Your task to perform on an android device: Open Google Image 0: 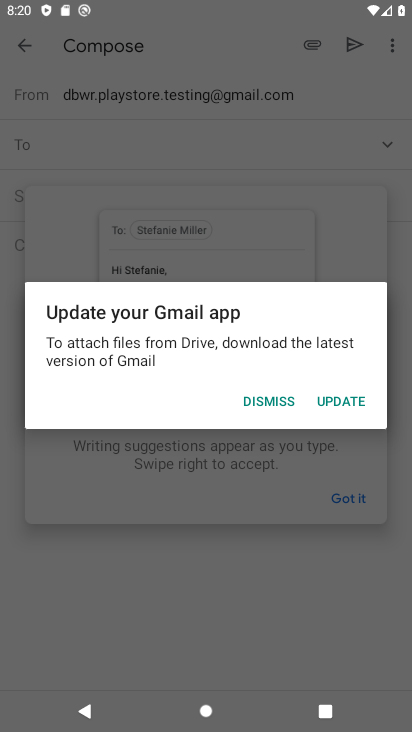
Step 0: press home button
Your task to perform on an android device: Open Google Image 1: 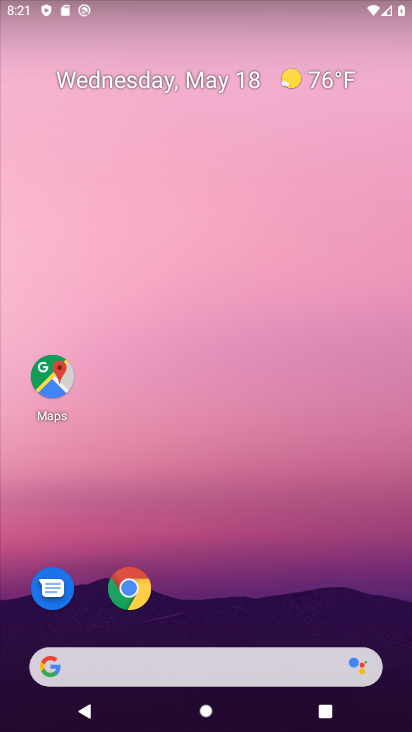
Step 1: click (132, 590)
Your task to perform on an android device: Open Google Image 2: 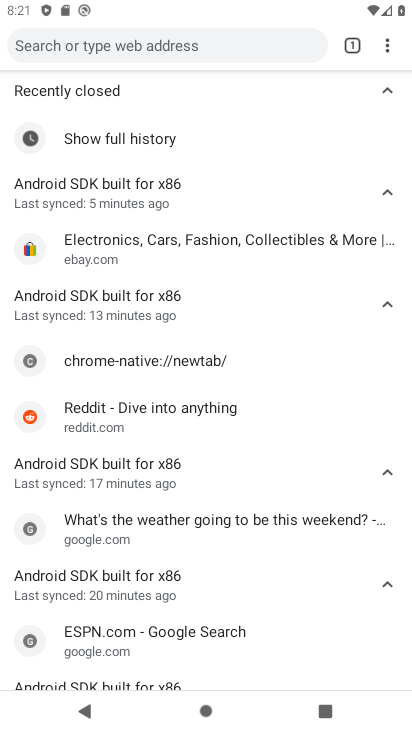
Step 2: click (117, 53)
Your task to perform on an android device: Open Google Image 3: 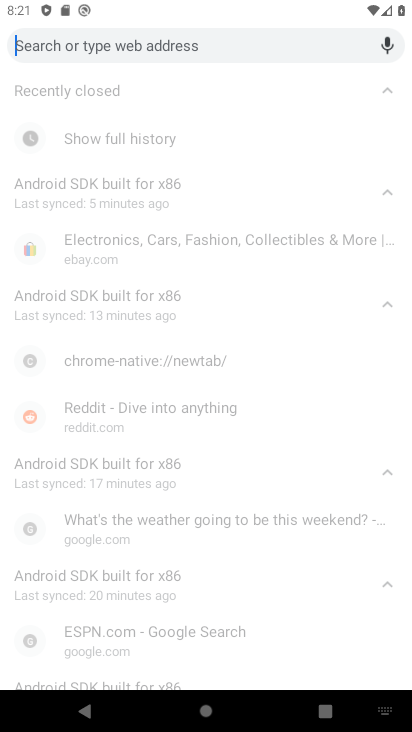
Step 3: type "google.com"
Your task to perform on an android device: Open Google Image 4: 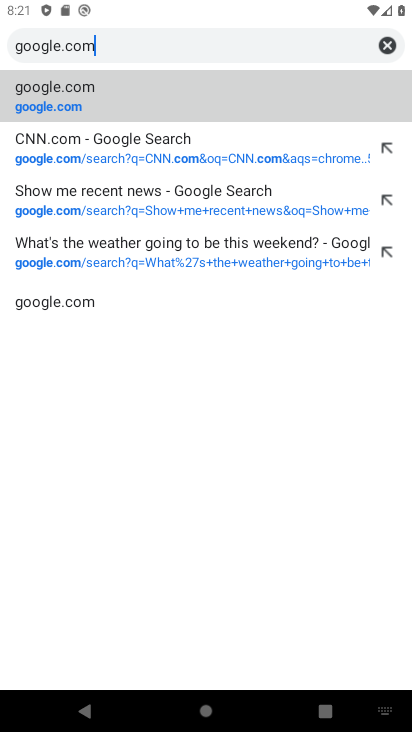
Step 4: click (190, 84)
Your task to perform on an android device: Open Google Image 5: 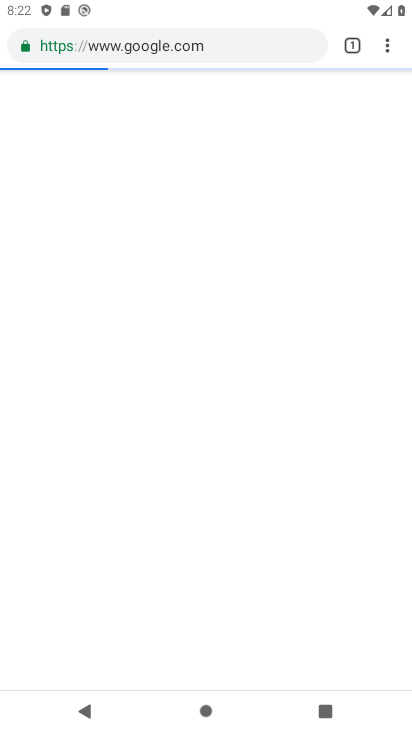
Step 5: task complete